Your task to perform on an android device: What is the recent news? Image 0: 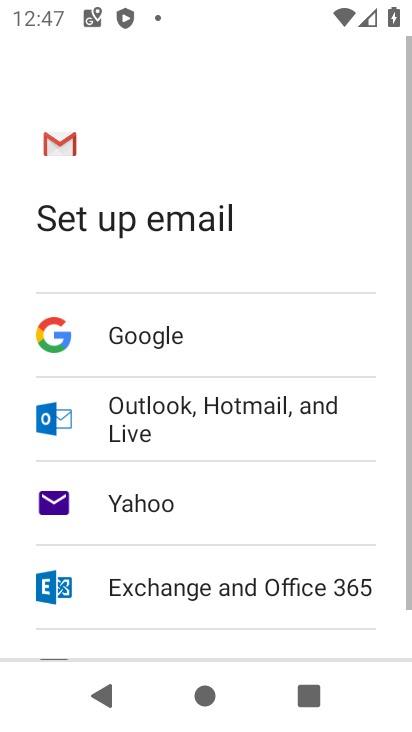
Step 0: press home button
Your task to perform on an android device: What is the recent news? Image 1: 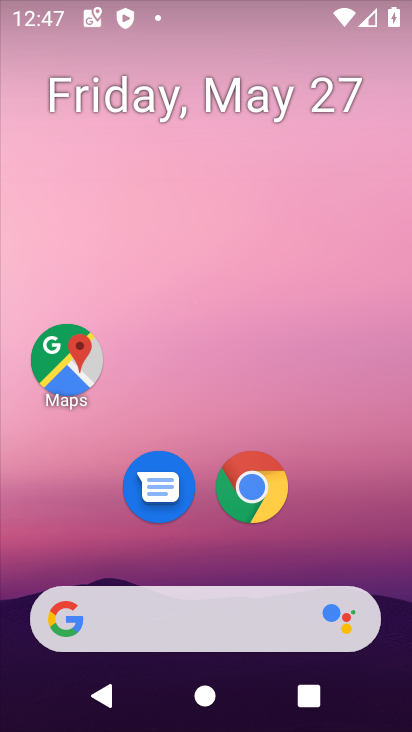
Step 1: drag from (226, 567) to (256, 67)
Your task to perform on an android device: What is the recent news? Image 2: 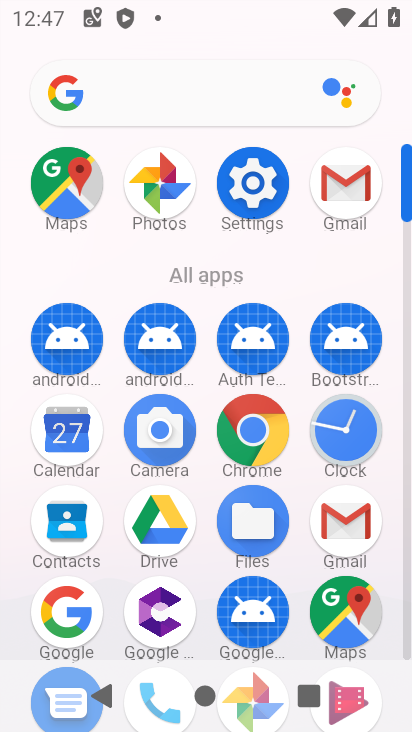
Step 2: click (67, 612)
Your task to perform on an android device: What is the recent news? Image 3: 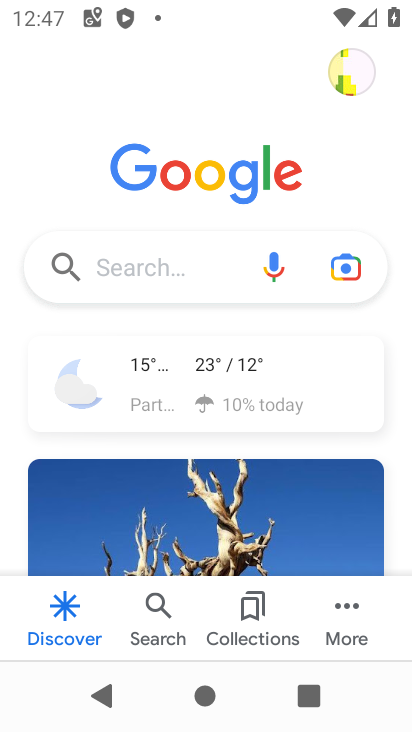
Step 3: click (163, 262)
Your task to perform on an android device: What is the recent news? Image 4: 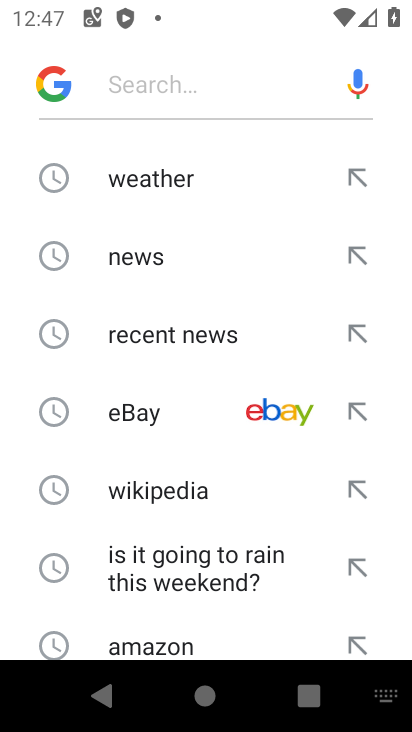
Step 4: click (208, 349)
Your task to perform on an android device: What is the recent news? Image 5: 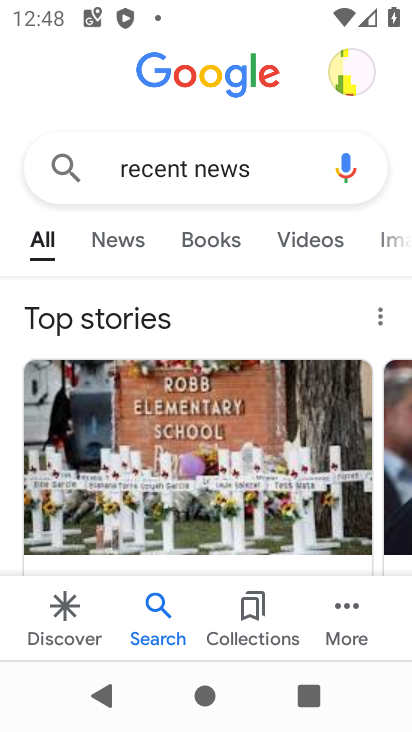
Step 5: task complete